Your task to perform on an android device: Open Google Chrome and open the bookmarks view Image 0: 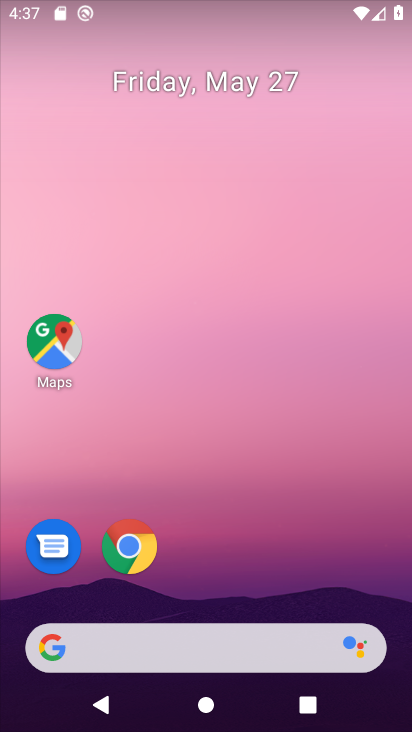
Step 0: drag from (256, 545) to (223, 7)
Your task to perform on an android device: Open Google Chrome and open the bookmarks view Image 1: 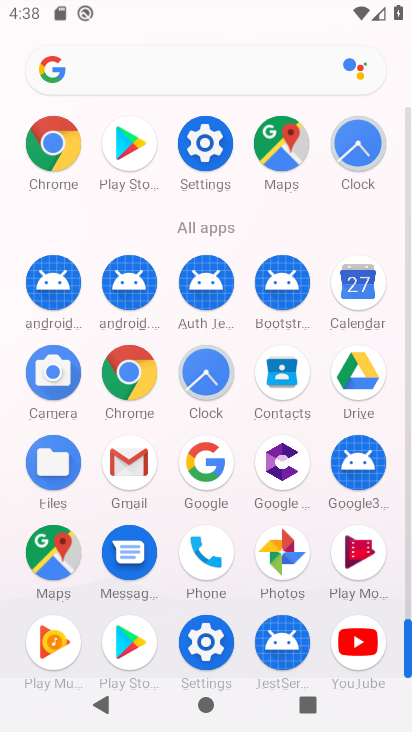
Step 1: click (130, 369)
Your task to perform on an android device: Open Google Chrome and open the bookmarks view Image 2: 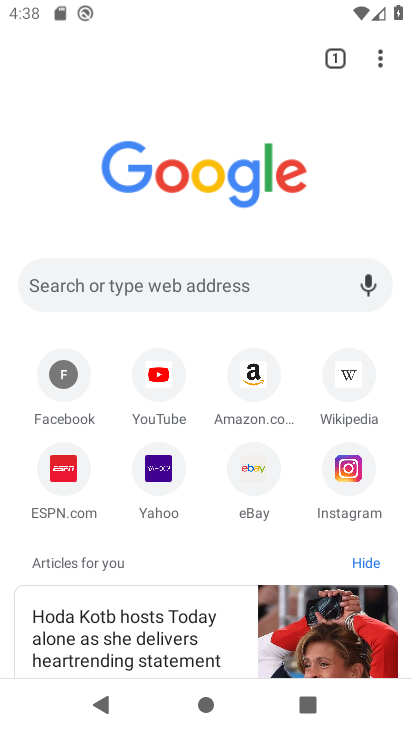
Step 2: task complete